Your task to perform on an android device: Go to Wikipedia Image 0: 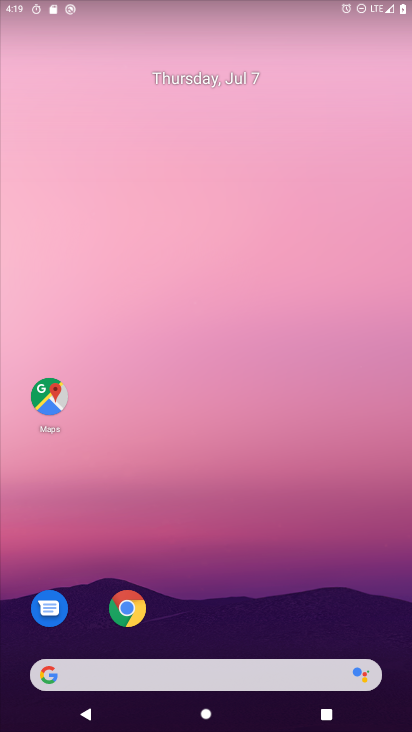
Step 0: click (125, 611)
Your task to perform on an android device: Go to Wikipedia Image 1: 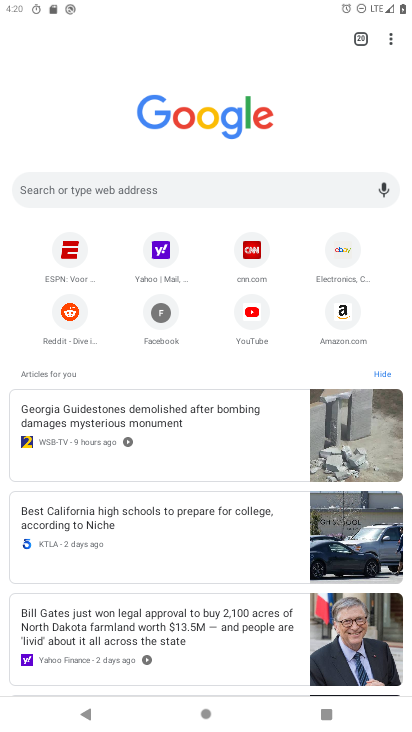
Step 1: click (205, 182)
Your task to perform on an android device: Go to Wikipedia Image 2: 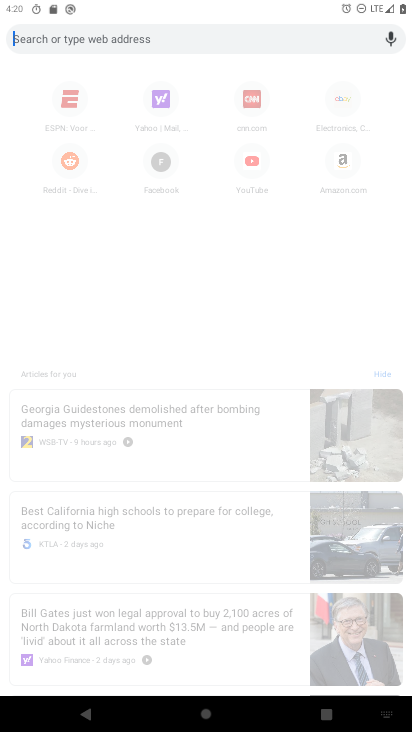
Step 2: type "wikipedia"
Your task to perform on an android device: Go to Wikipedia Image 3: 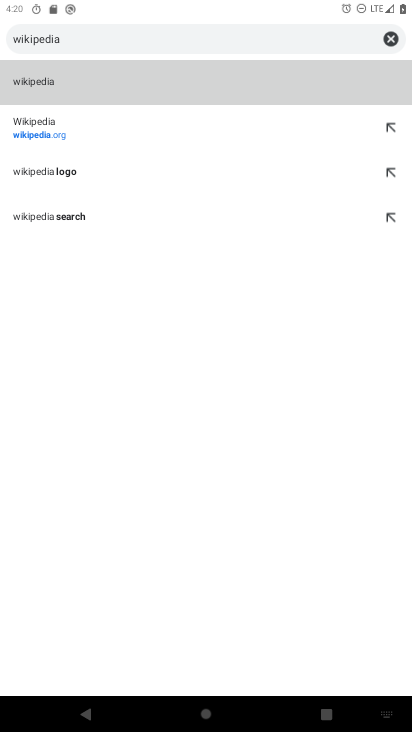
Step 3: click (53, 75)
Your task to perform on an android device: Go to Wikipedia Image 4: 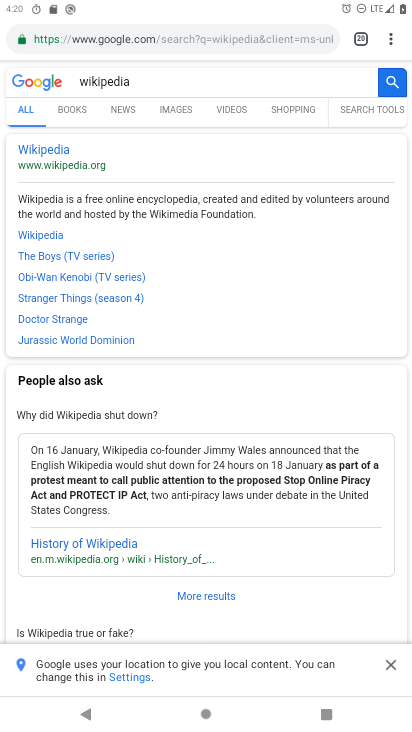
Step 4: click (50, 151)
Your task to perform on an android device: Go to Wikipedia Image 5: 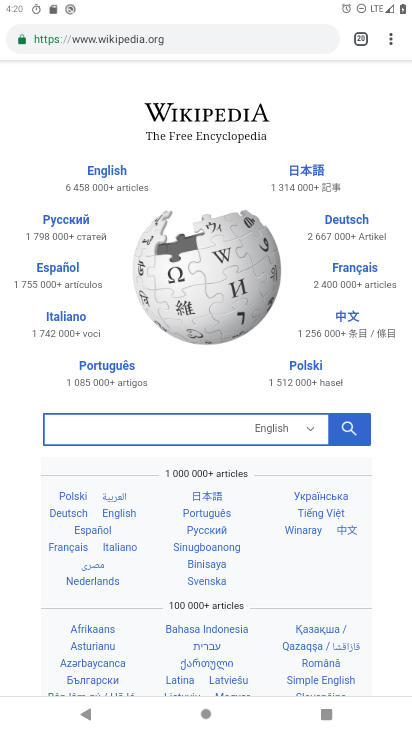
Step 5: task complete